Your task to perform on an android device: turn on translation in the chrome app Image 0: 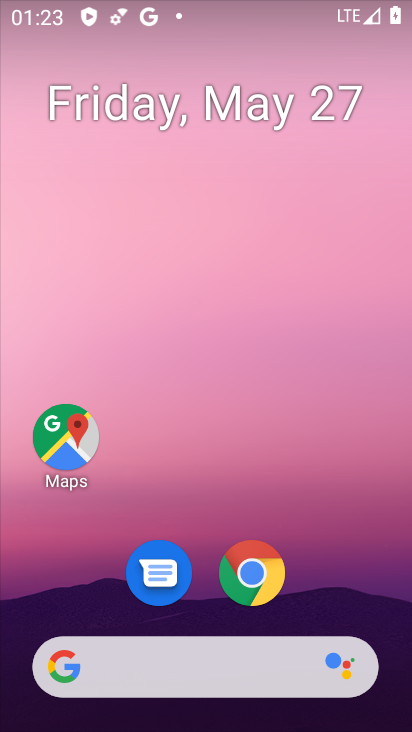
Step 0: click (257, 590)
Your task to perform on an android device: turn on translation in the chrome app Image 1: 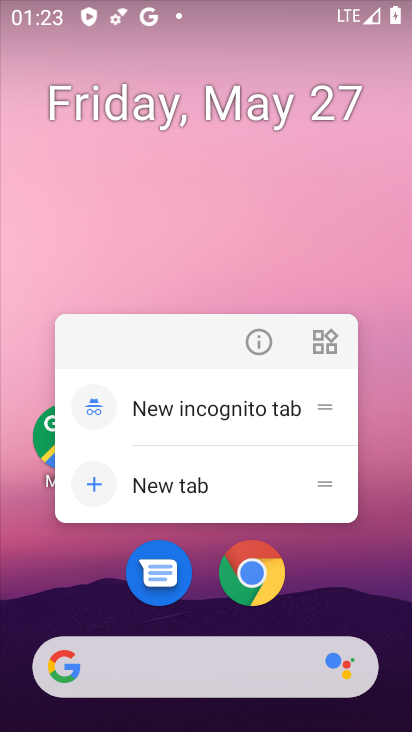
Step 1: click (258, 583)
Your task to perform on an android device: turn on translation in the chrome app Image 2: 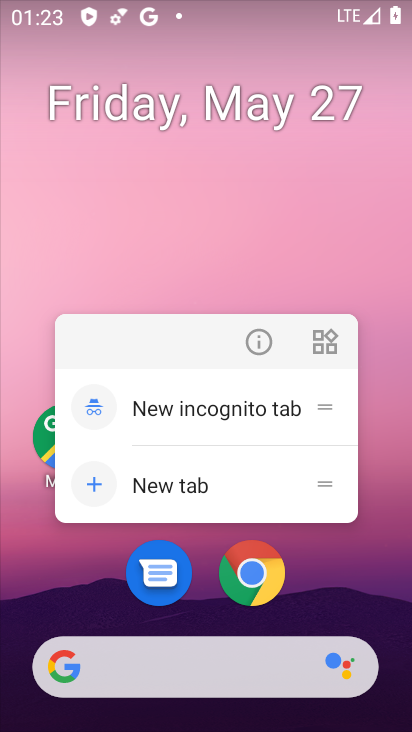
Step 2: click (259, 577)
Your task to perform on an android device: turn on translation in the chrome app Image 3: 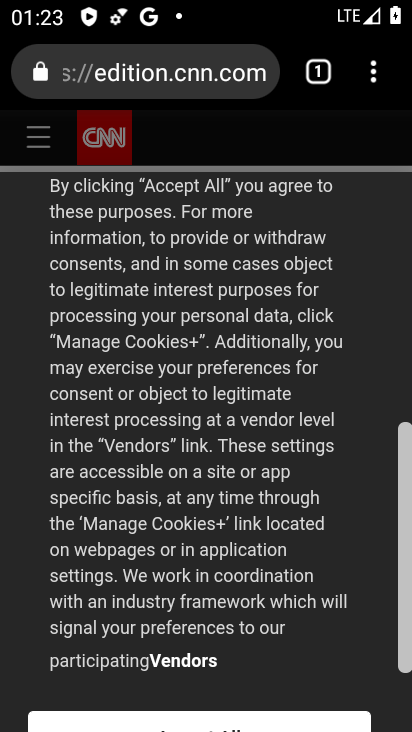
Step 3: click (380, 70)
Your task to perform on an android device: turn on translation in the chrome app Image 4: 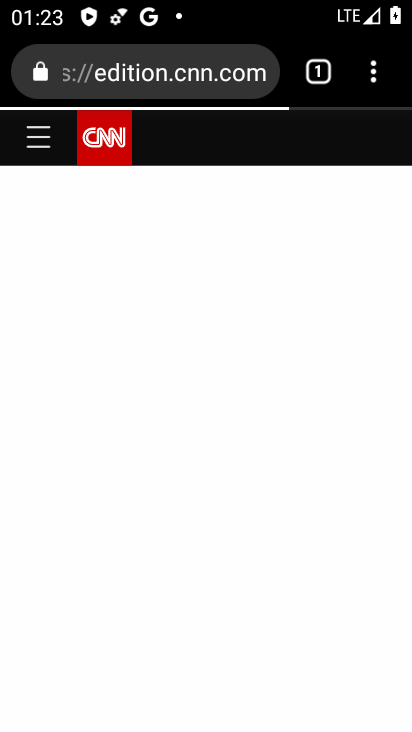
Step 4: drag from (377, 70) to (258, 503)
Your task to perform on an android device: turn on translation in the chrome app Image 5: 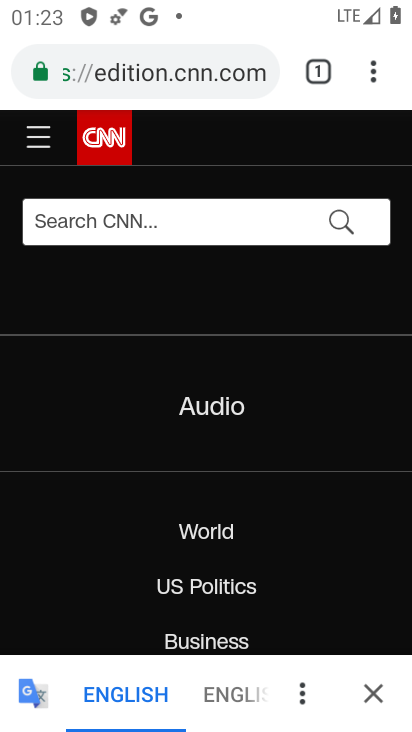
Step 5: drag from (225, 574) to (225, 257)
Your task to perform on an android device: turn on translation in the chrome app Image 6: 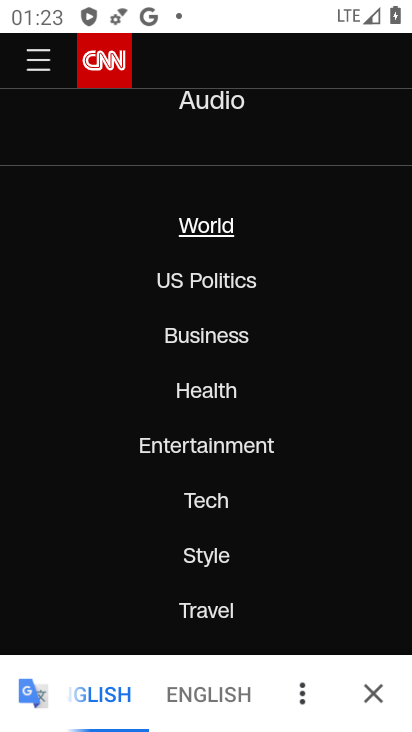
Step 6: drag from (375, 54) to (364, 379)
Your task to perform on an android device: turn on translation in the chrome app Image 7: 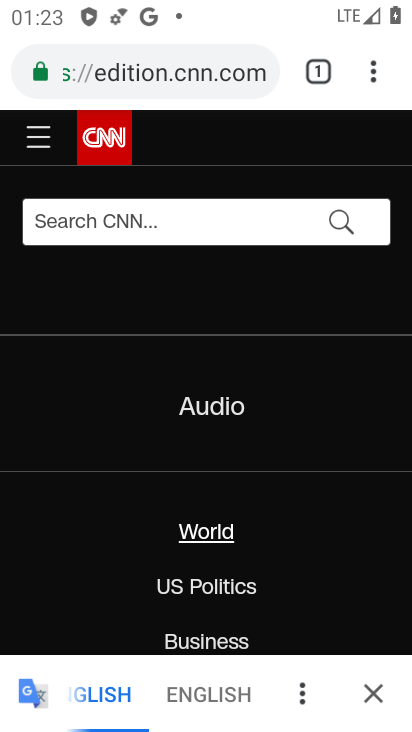
Step 7: drag from (370, 47) to (134, 578)
Your task to perform on an android device: turn on translation in the chrome app Image 8: 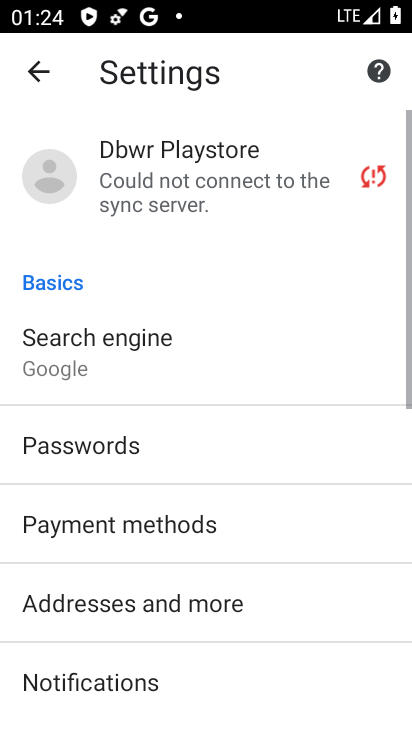
Step 8: drag from (134, 575) to (120, 0)
Your task to perform on an android device: turn on translation in the chrome app Image 9: 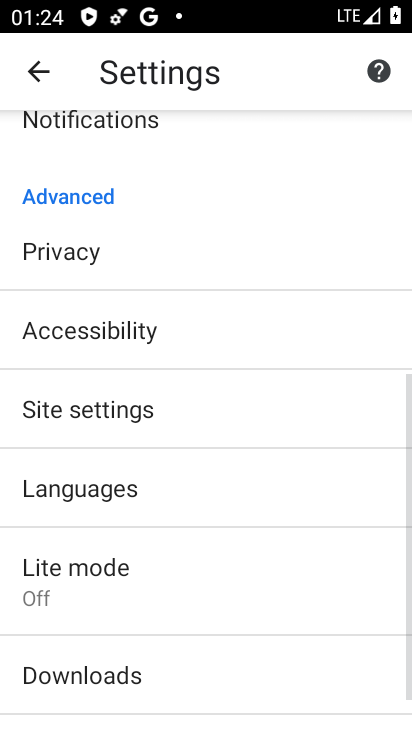
Step 9: click (95, 485)
Your task to perform on an android device: turn on translation in the chrome app Image 10: 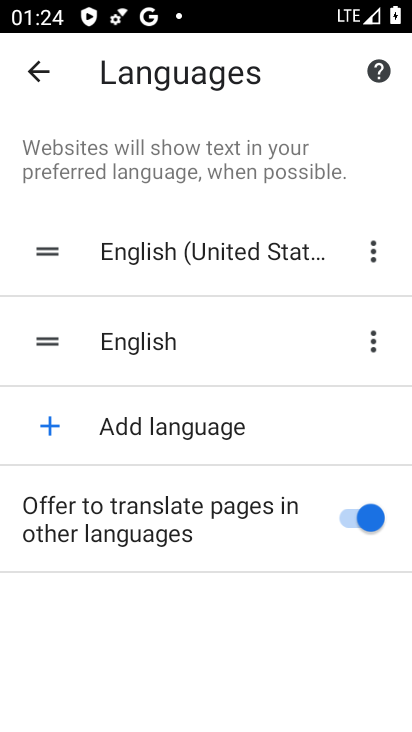
Step 10: task complete